Your task to perform on an android device: Clear the cart on walmart. Add bose soundsport free to the cart on walmart, then select checkout. Image 0: 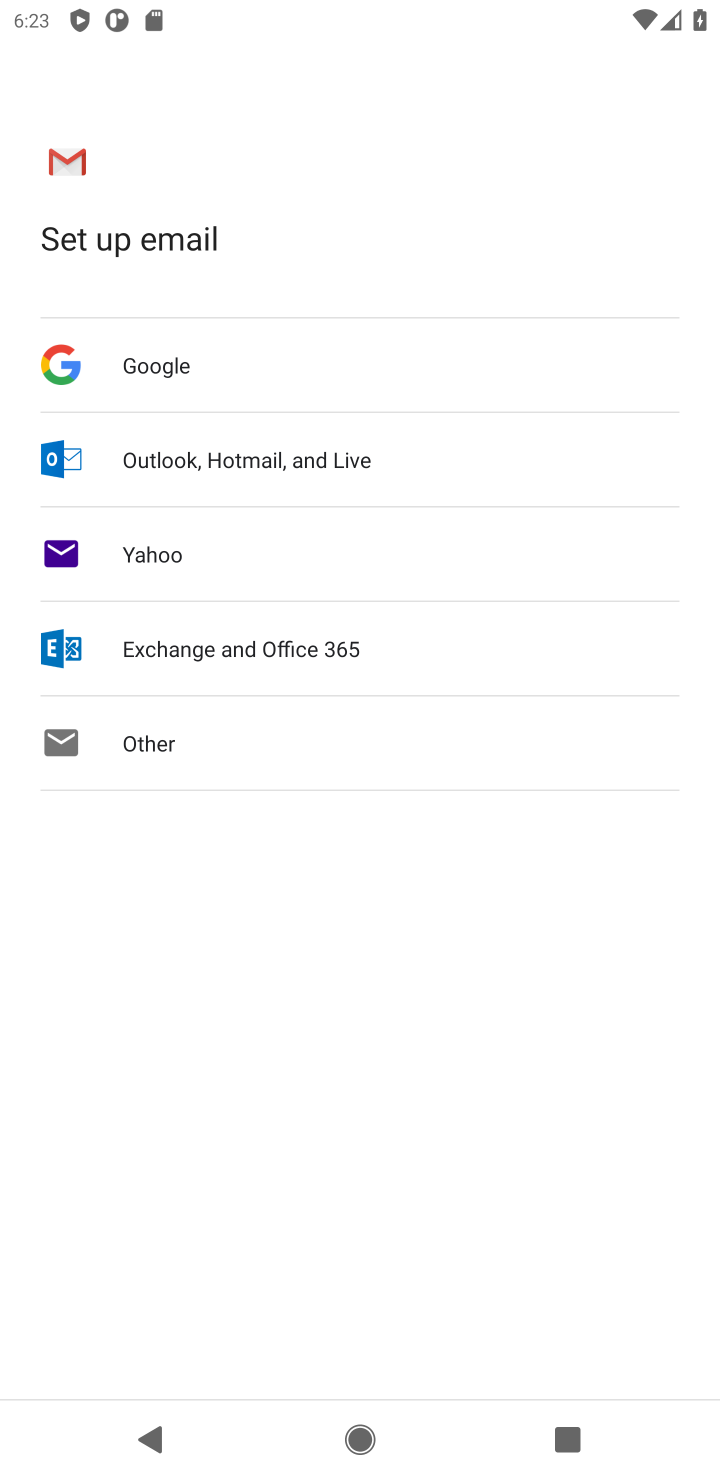
Step 0: press home button
Your task to perform on an android device: Clear the cart on walmart. Add bose soundsport free to the cart on walmart, then select checkout. Image 1: 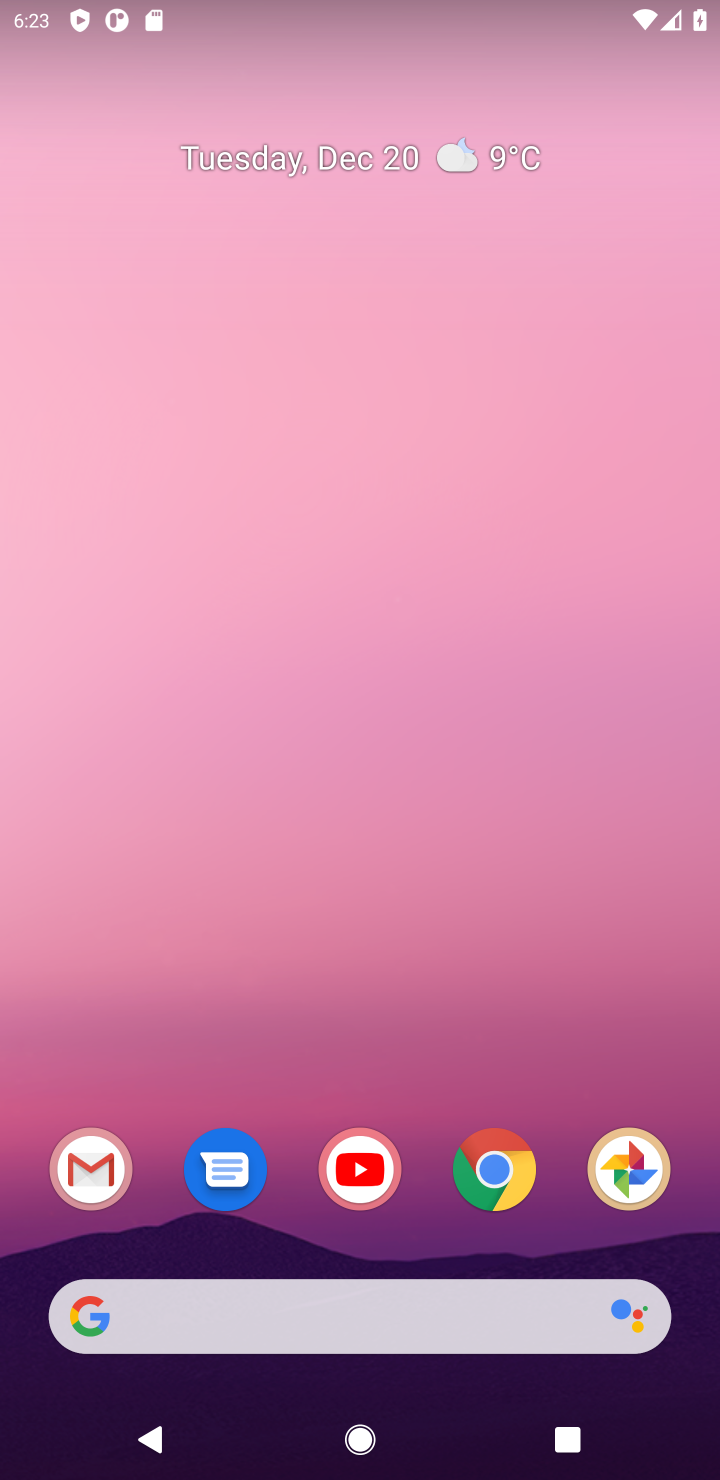
Step 1: click (489, 1212)
Your task to perform on an android device: Clear the cart on walmart. Add bose soundsport free to the cart on walmart, then select checkout. Image 2: 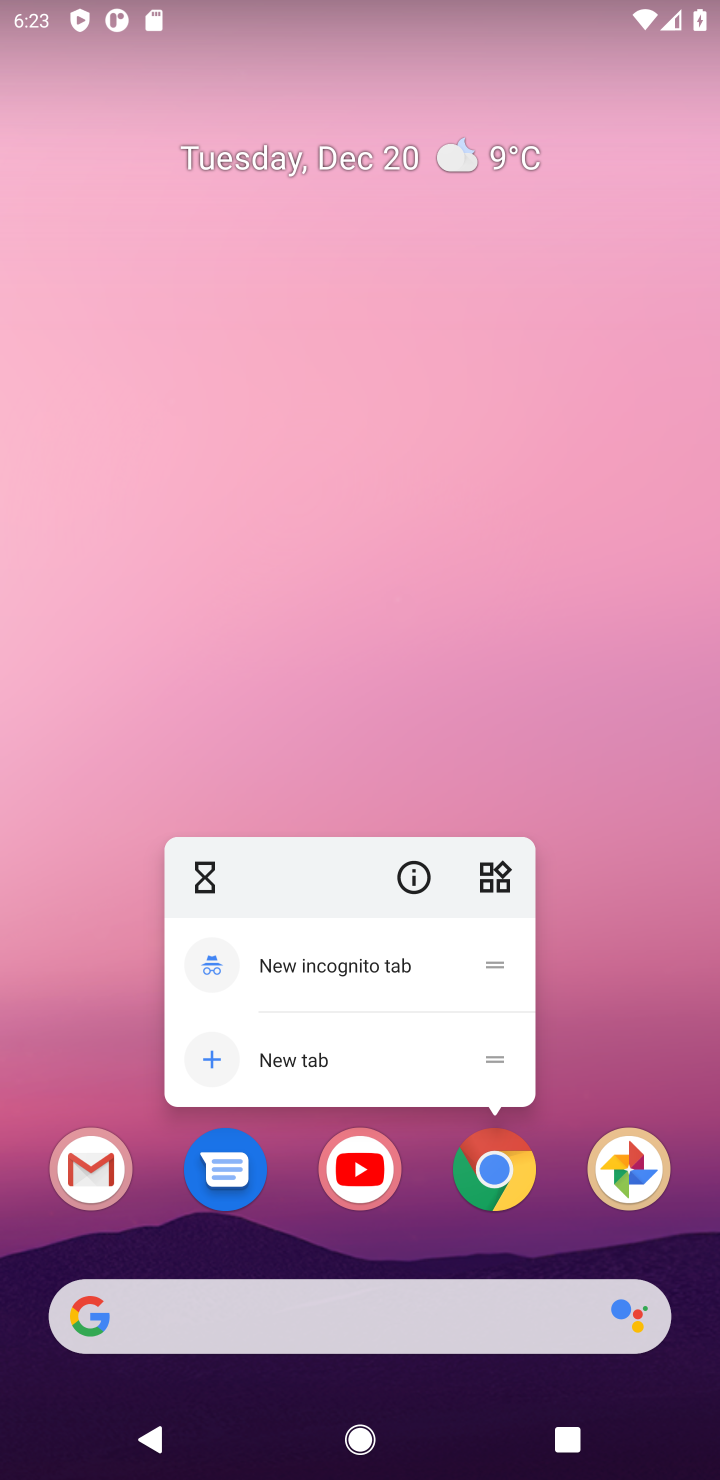
Step 2: click (489, 1187)
Your task to perform on an android device: Clear the cart on walmart. Add bose soundsport free to the cart on walmart, then select checkout. Image 3: 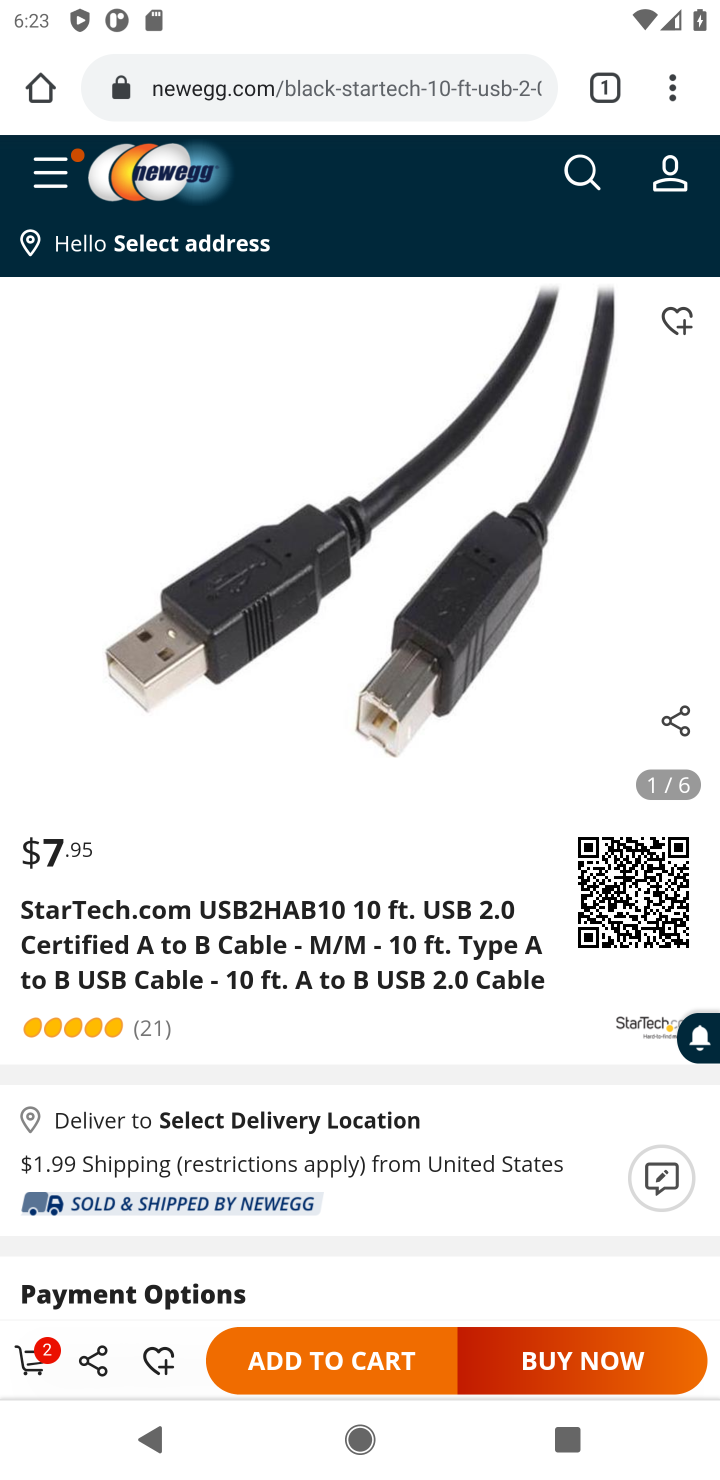
Step 3: click (357, 89)
Your task to perform on an android device: Clear the cart on walmart. Add bose soundsport free to the cart on walmart, then select checkout. Image 4: 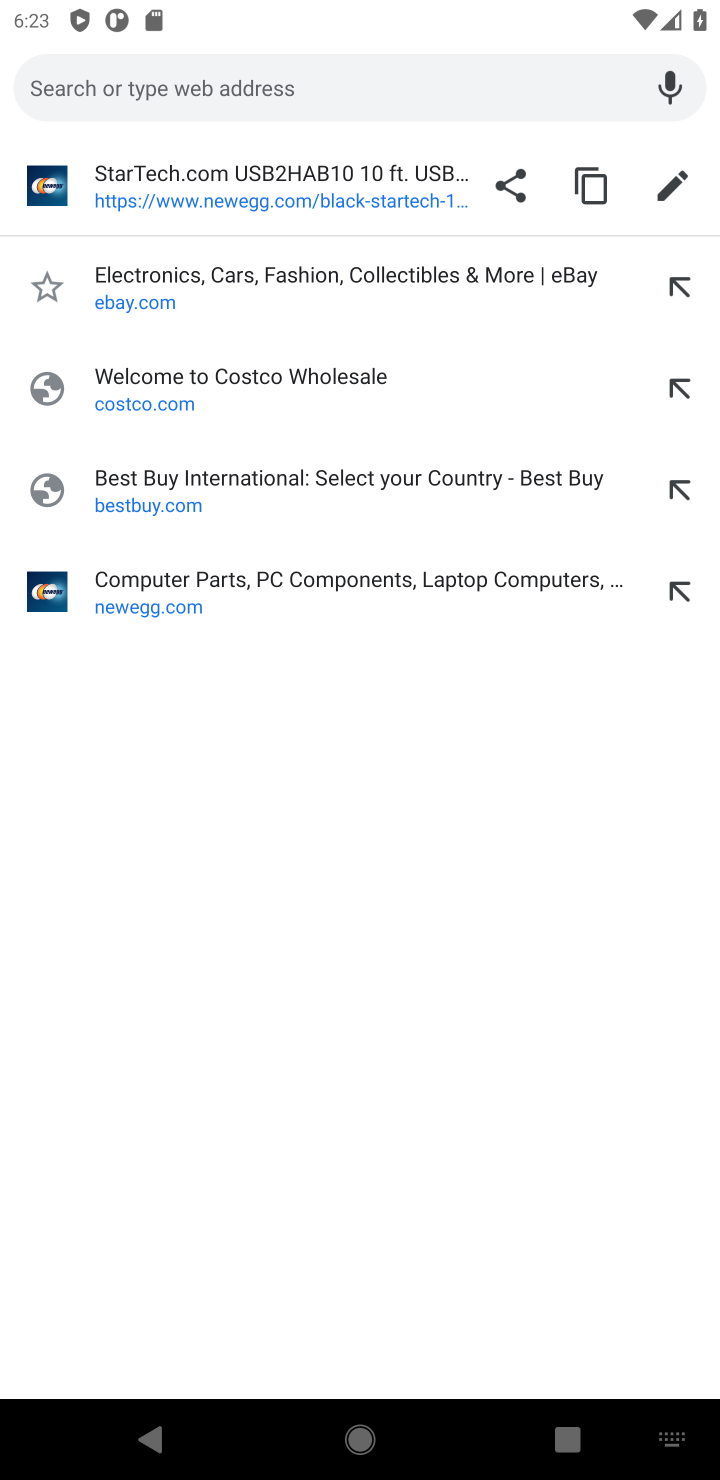
Step 4: type "walmart"
Your task to perform on an android device: Clear the cart on walmart. Add bose soundsport free to the cart on walmart, then select checkout. Image 5: 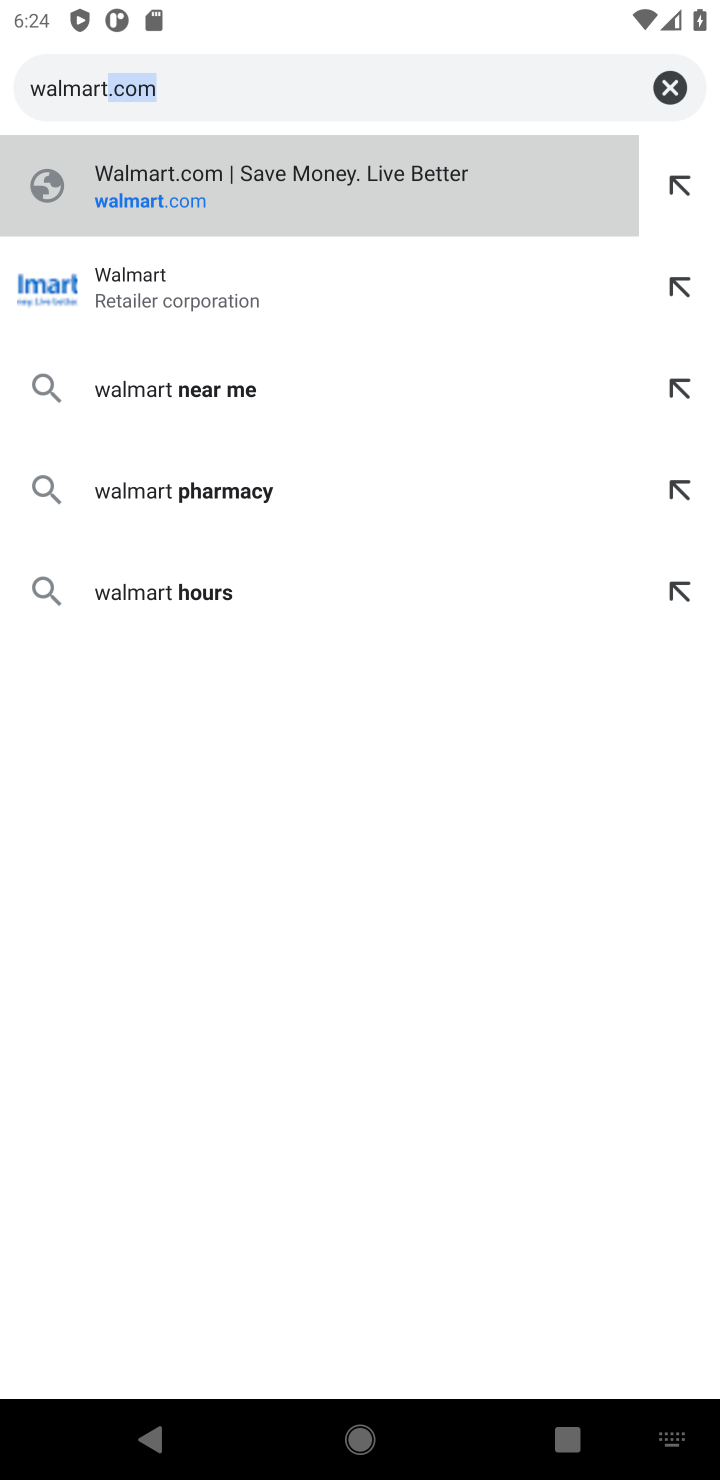
Step 5: click (255, 193)
Your task to perform on an android device: Clear the cart on walmart. Add bose soundsport free to the cart on walmart, then select checkout. Image 6: 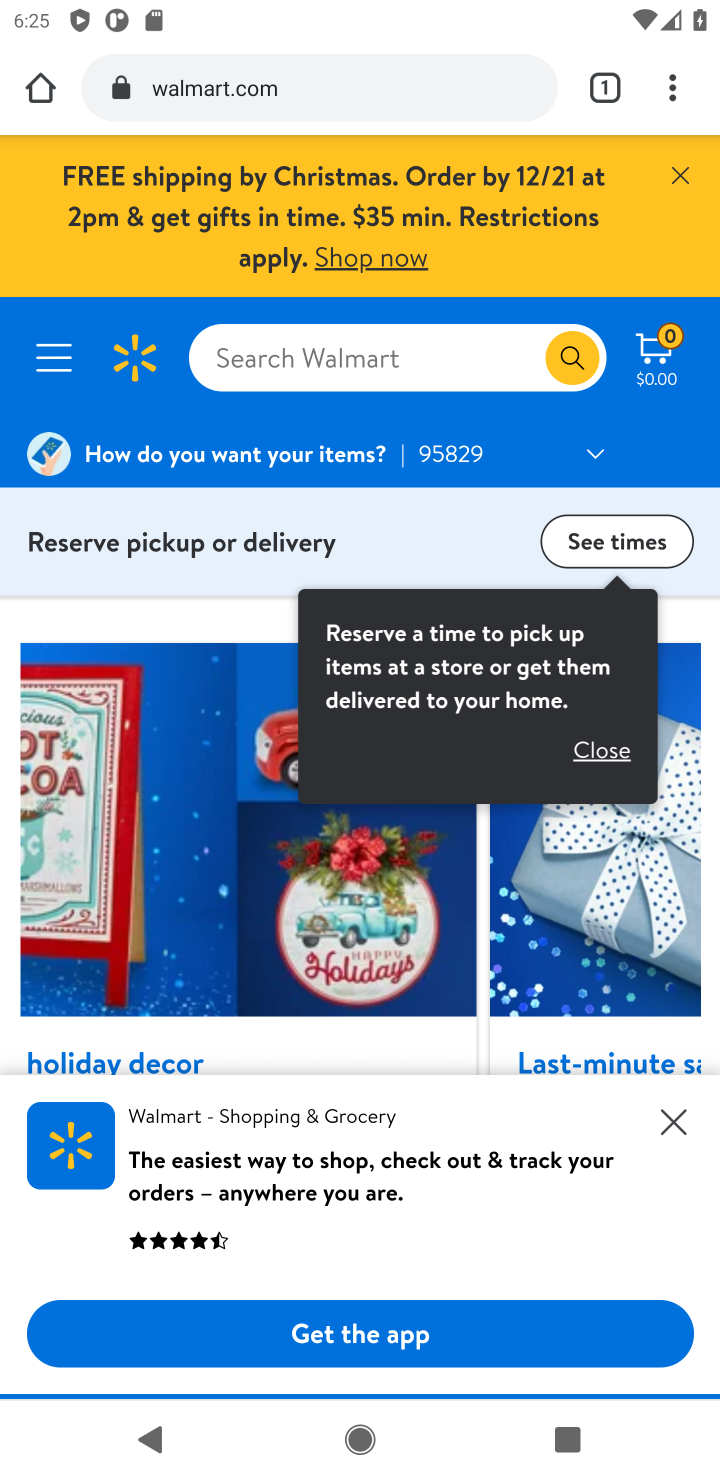
Step 6: click (315, 363)
Your task to perform on an android device: Clear the cart on walmart. Add bose soundsport free to the cart on walmart, then select checkout. Image 7: 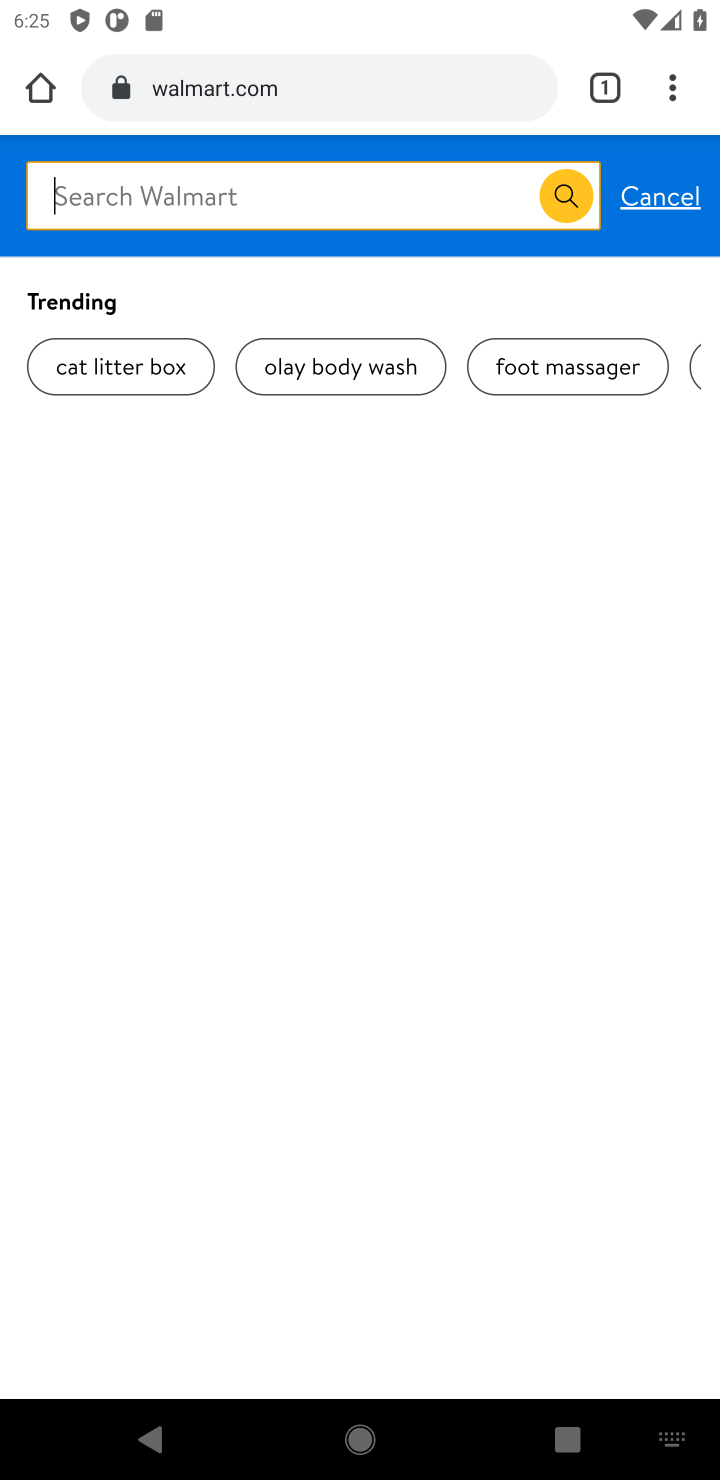
Step 7: type "bose soundsports"
Your task to perform on an android device: Clear the cart on walmart. Add bose soundsport free to the cart on walmart, then select checkout. Image 8: 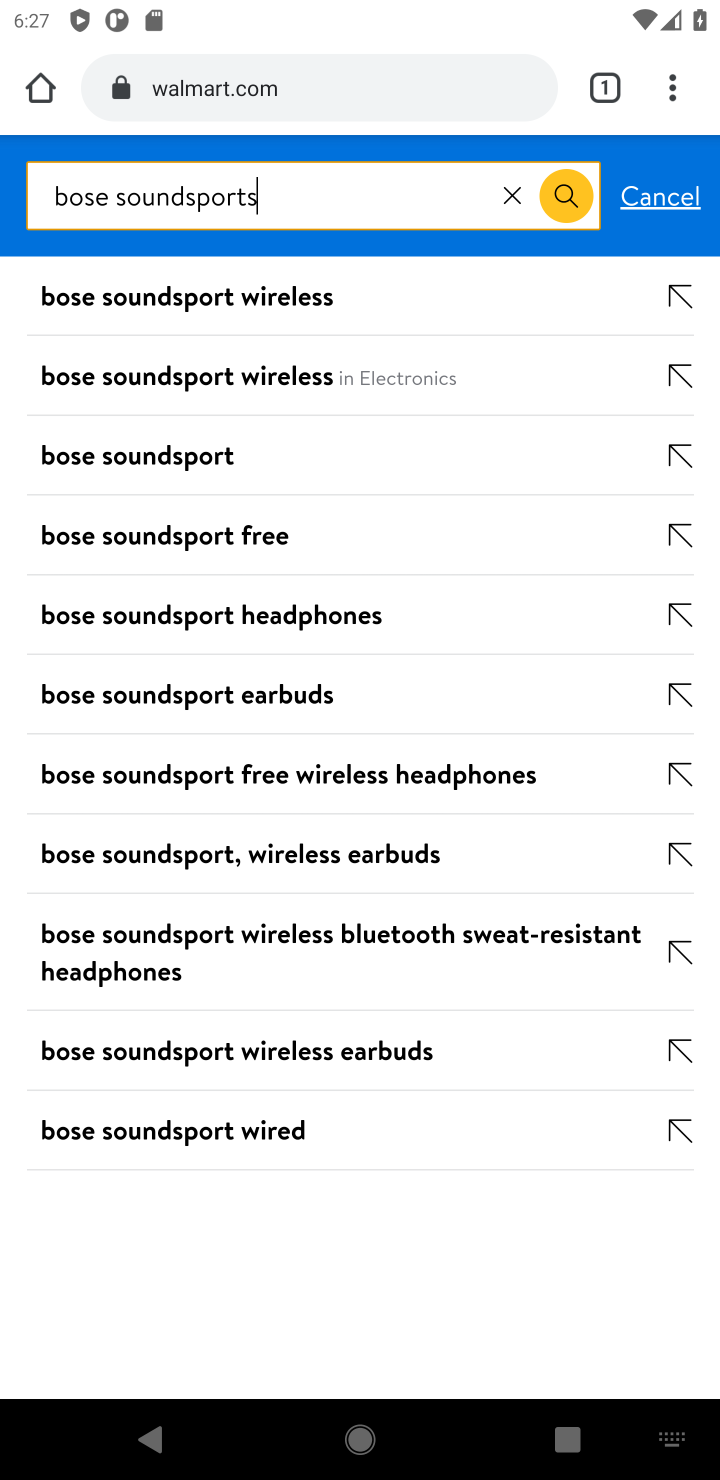
Step 8: click (187, 460)
Your task to perform on an android device: Clear the cart on walmart. Add bose soundsport free to the cart on walmart, then select checkout. Image 9: 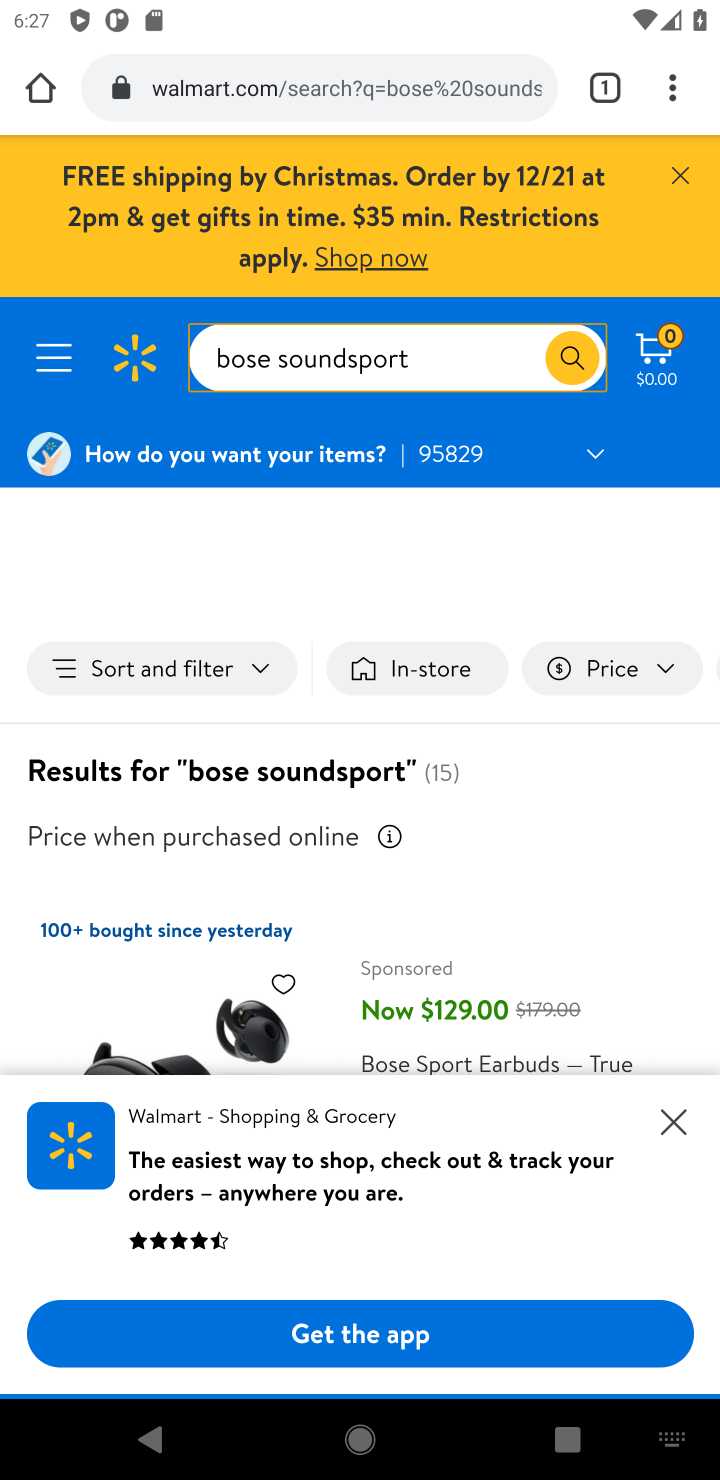
Step 9: click (674, 1108)
Your task to perform on an android device: Clear the cart on walmart. Add bose soundsport free to the cart on walmart, then select checkout. Image 10: 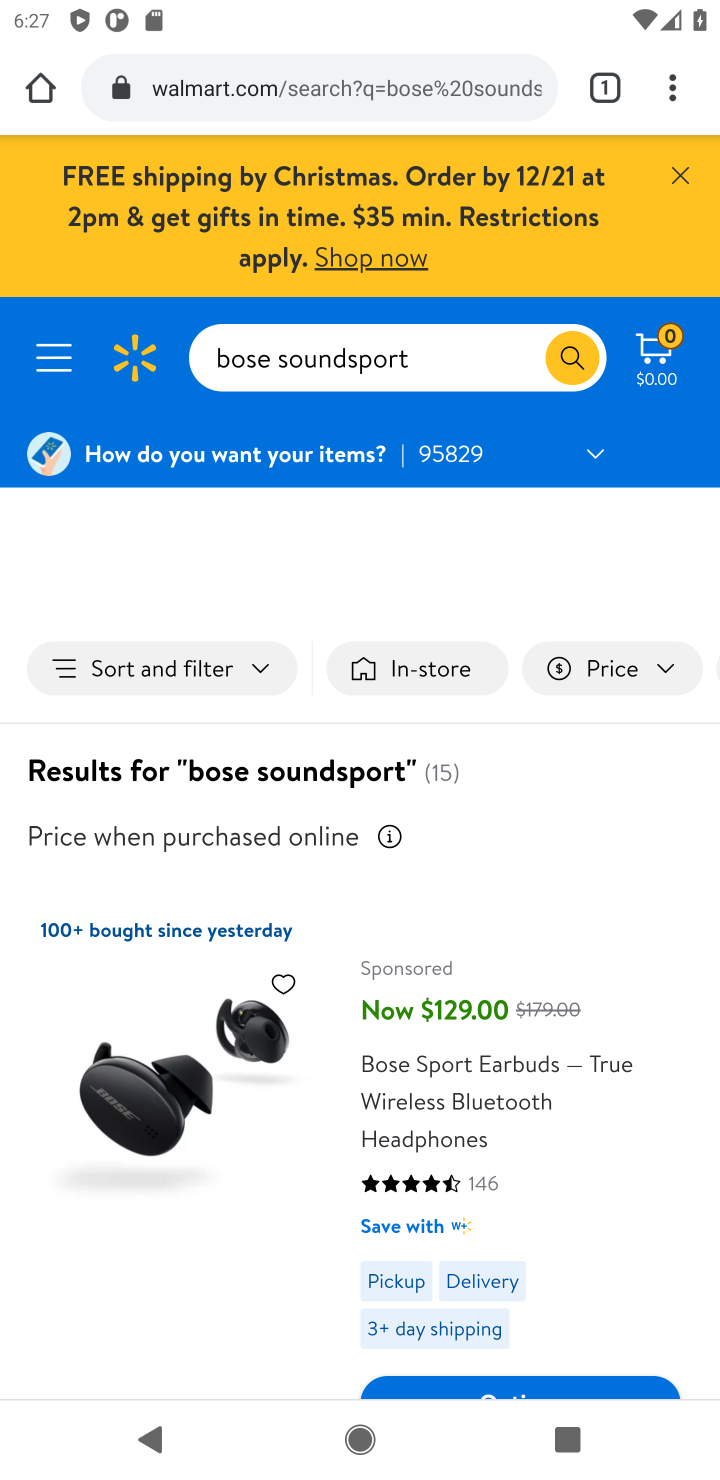
Step 10: drag from (614, 1278) to (515, 770)
Your task to perform on an android device: Clear the cart on walmart. Add bose soundsport free to the cart on walmart, then select checkout. Image 11: 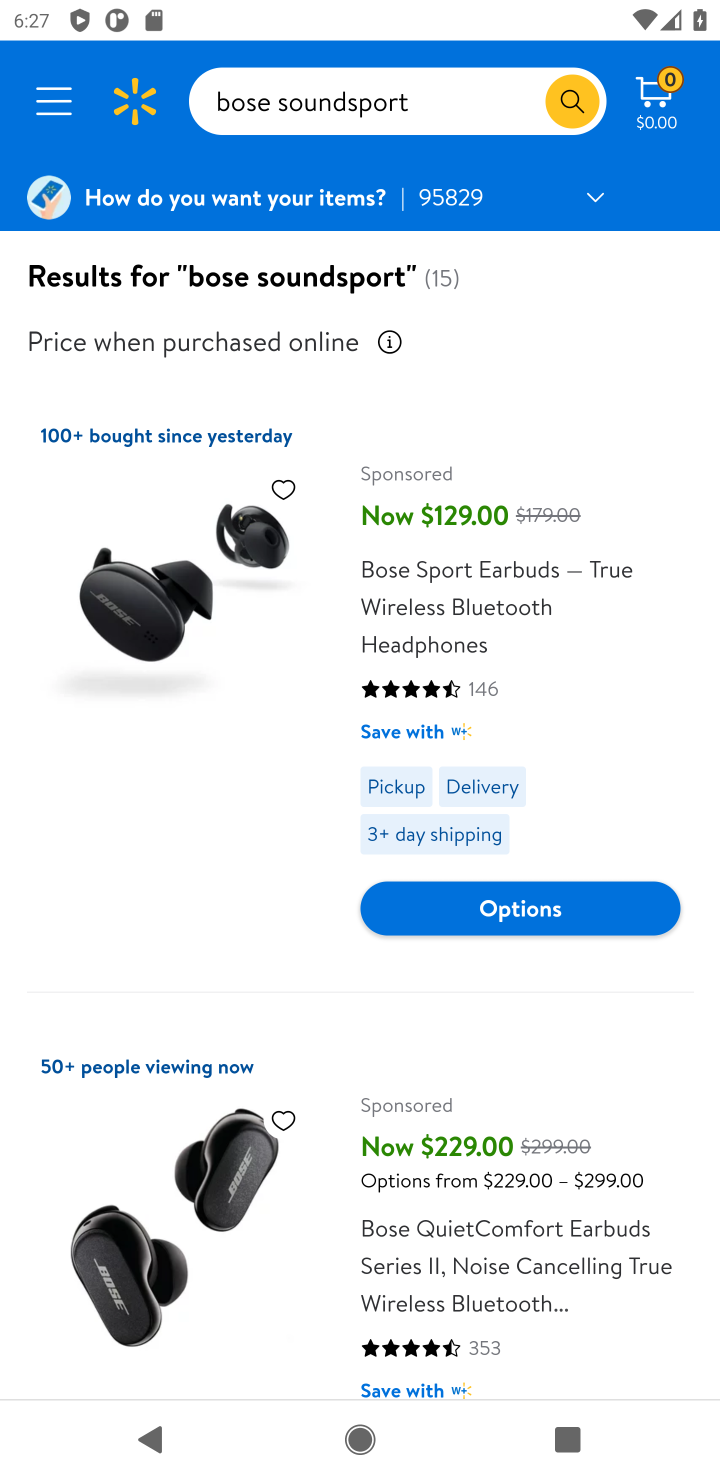
Step 11: click (544, 884)
Your task to perform on an android device: Clear the cart on walmart. Add bose soundsport free to the cart on walmart, then select checkout. Image 12: 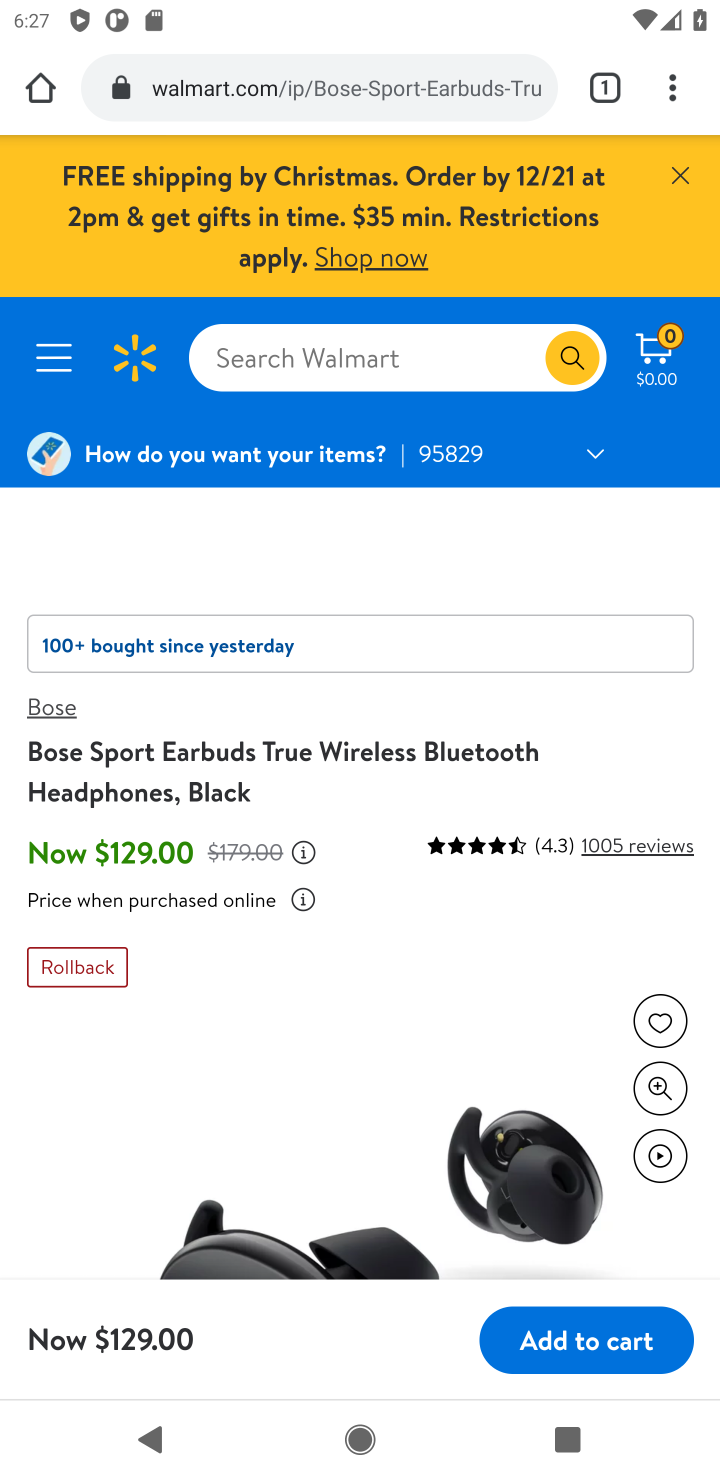
Step 12: click (596, 1337)
Your task to perform on an android device: Clear the cart on walmart. Add bose soundsport free to the cart on walmart, then select checkout. Image 13: 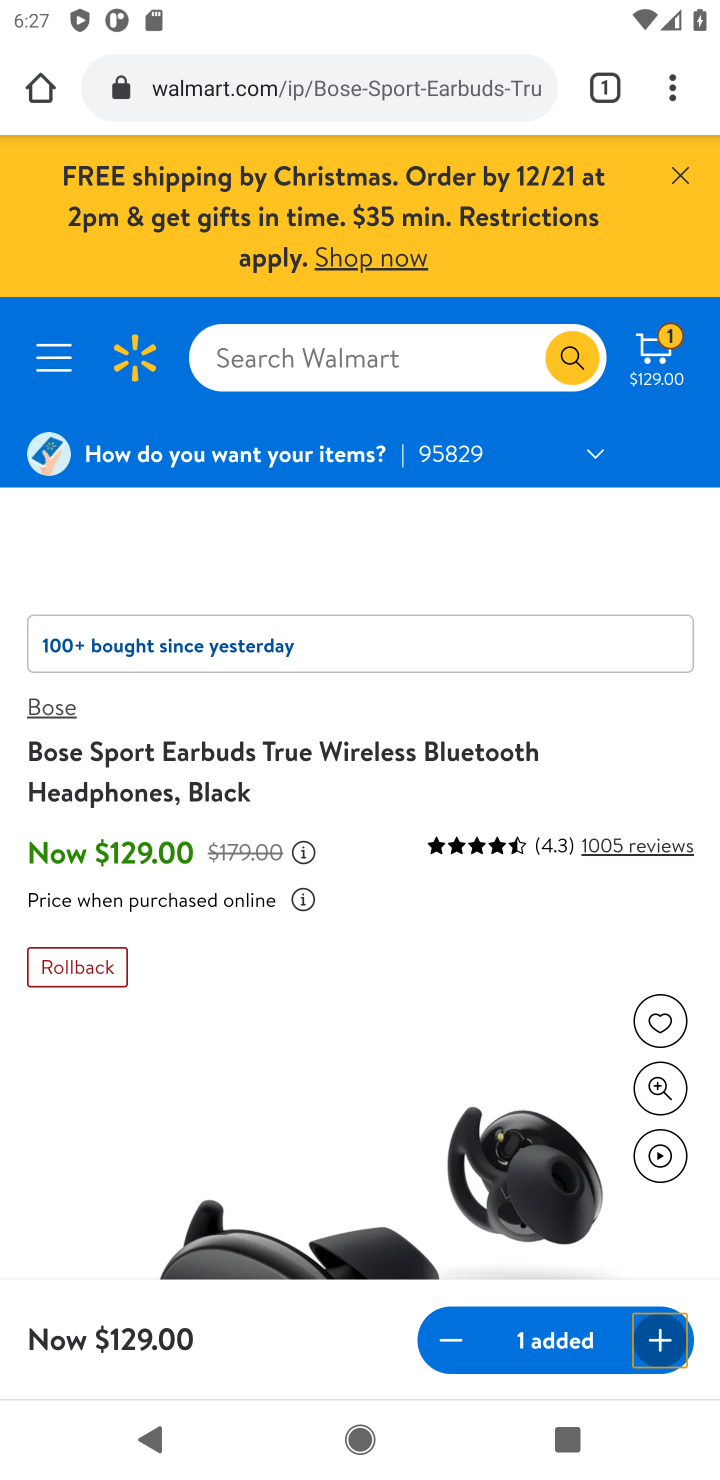
Step 13: task complete